Your task to perform on an android device: toggle sleep mode Image 0: 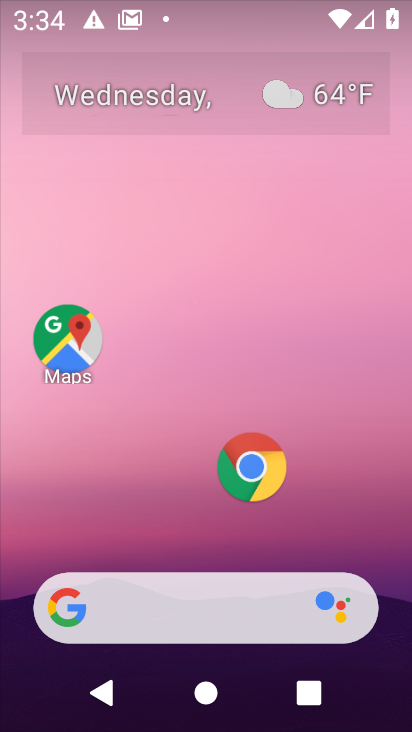
Step 0: drag from (126, 484) to (155, 99)
Your task to perform on an android device: toggle sleep mode Image 1: 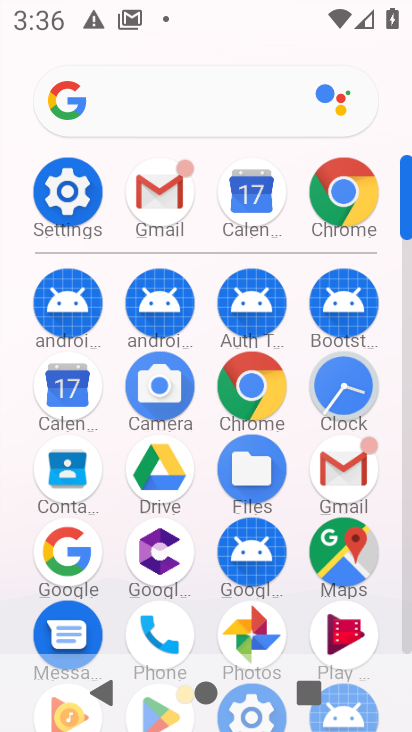
Step 1: task complete